Your task to perform on an android device: Open Google Maps and go to "Timeline" Image 0: 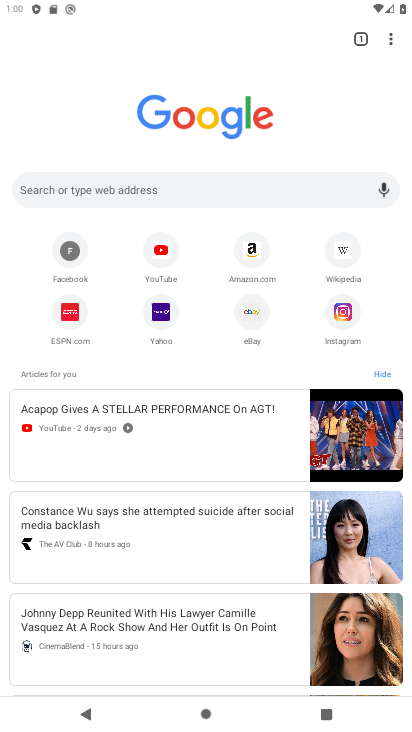
Step 0: press home button
Your task to perform on an android device: Open Google Maps and go to "Timeline" Image 1: 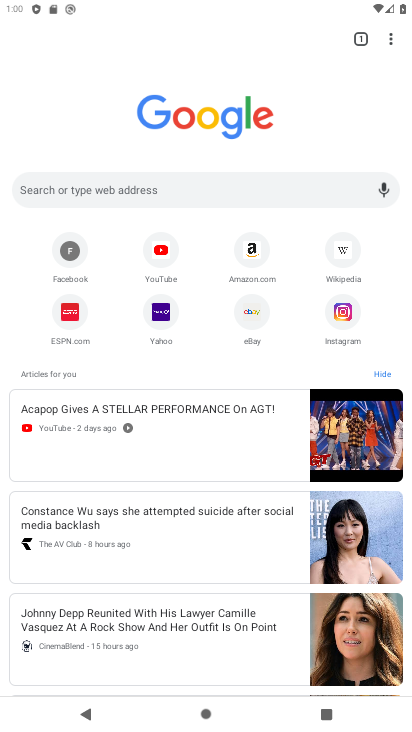
Step 1: press home button
Your task to perform on an android device: Open Google Maps and go to "Timeline" Image 2: 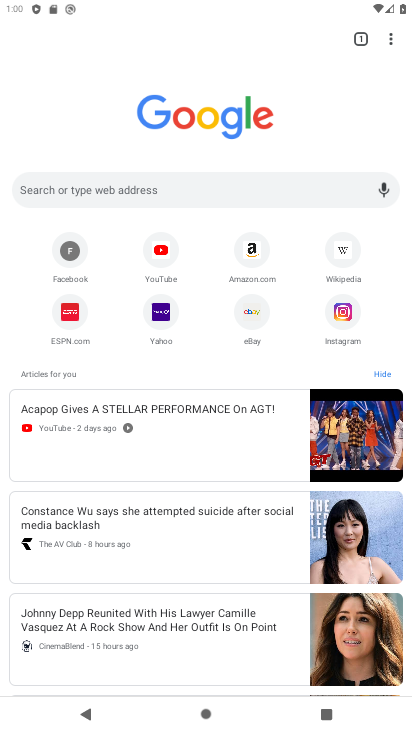
Step 2: drag from (146, 528) to (164, 203)
Your task to perform on an android device: Open Google Maps and go to "Timeline" Image 3: 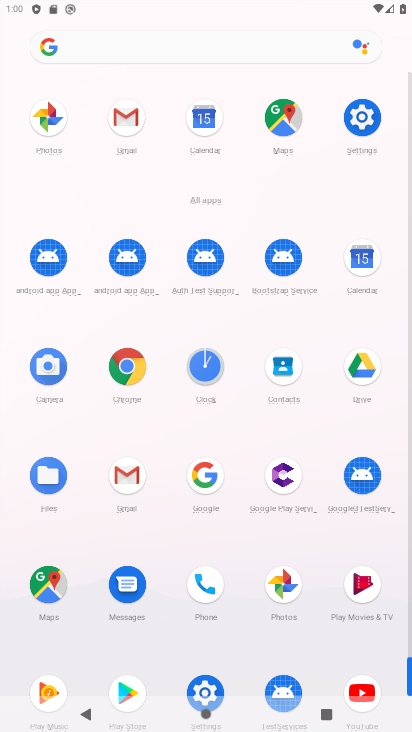
Step 3: click (50, 577)
Your task to perform on an android device: Open Google Maps and go to "Timeline" Image 4: 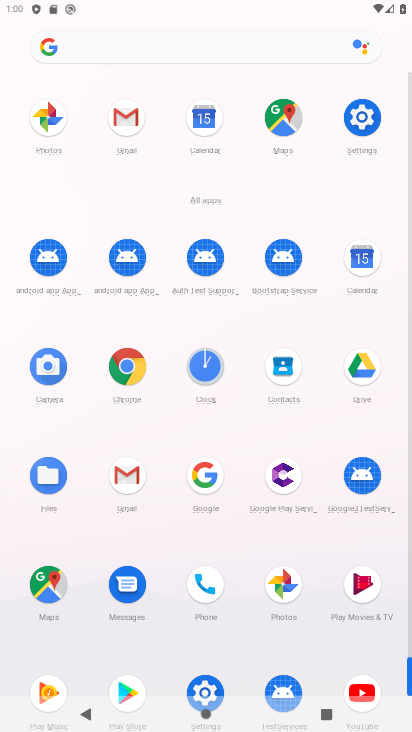
Step 4: click (50, 577)
Your task to perform on an android device: Open Google Maps and go to "Timeline" Image 5: 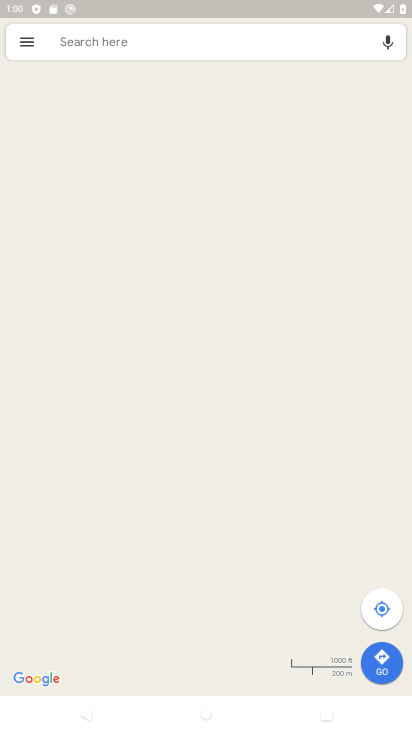
Step 5: click (37, 38)
Your task to perform on an android device: Open Google Maps and go to "Timeline" Image 6: 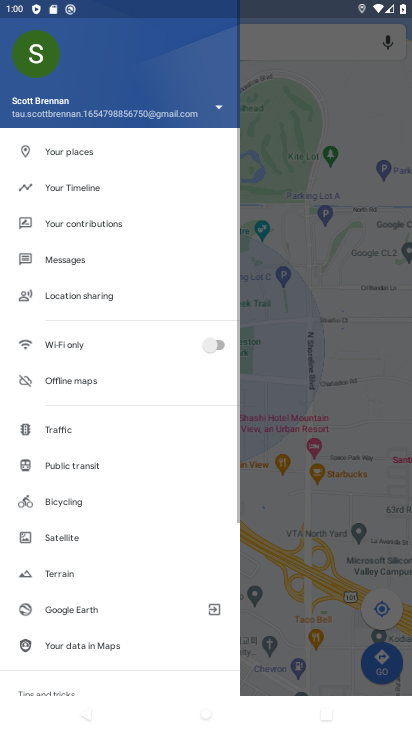
Step 6: click (102, 191)
Your task to perform on an android device: Open Google Maps and go to "Timeline" Image 7: 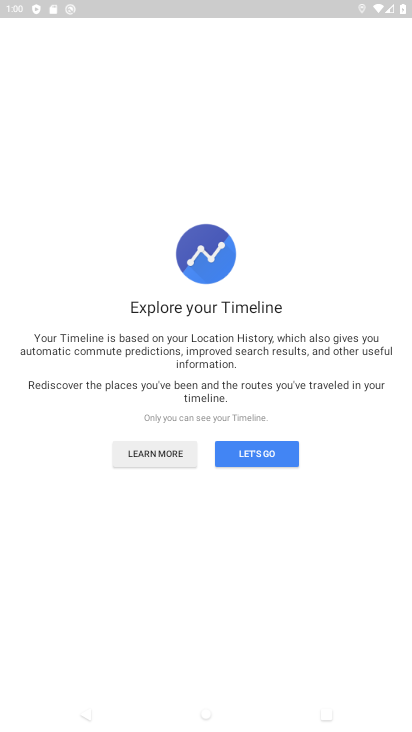
Step 7: click (252, 444)
Your task to perform on an android device: Open Google Maps and go to "Timeline" Image 8: 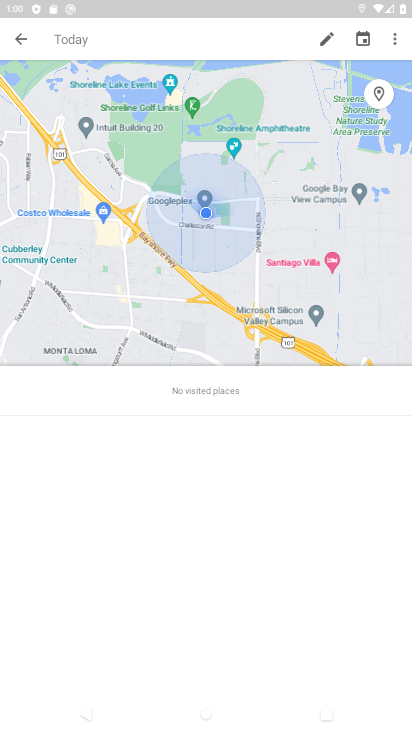
Step 8: task complete